Your task to perform on an android device: set the timer Image 0: 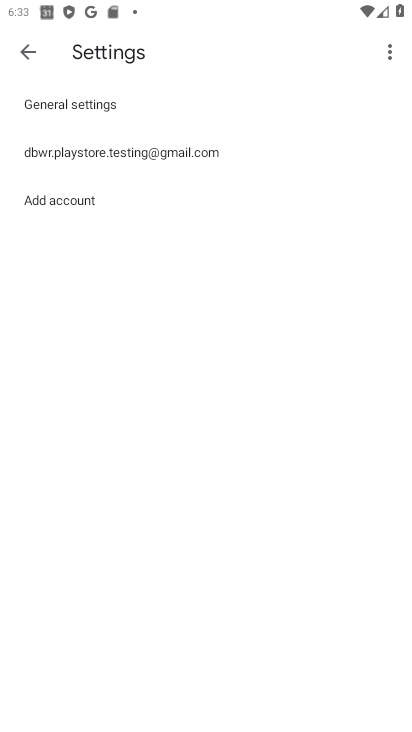
Step 0: press home button
Your task to perform on an android device: set the timer Image 1: 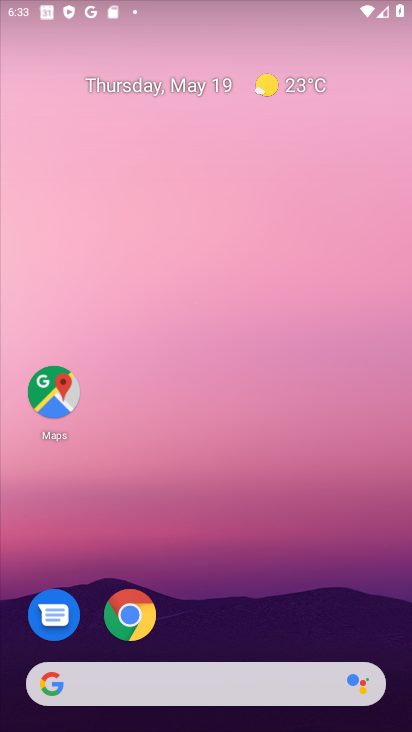
Step 1: drag from (354, 622) to (334, 52)
Your task to perform on an android device: set the timer Image 2: 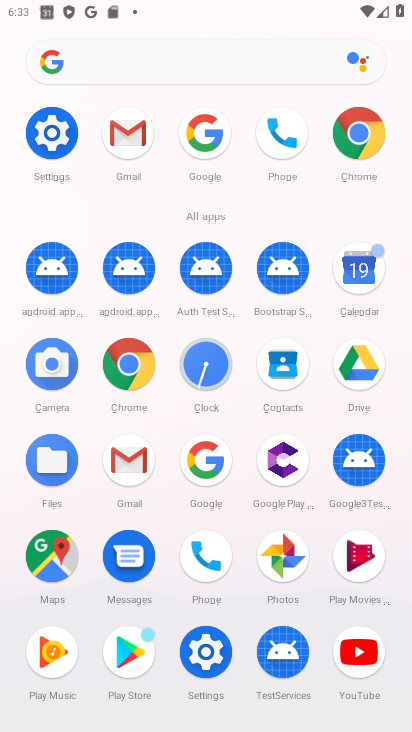
Step 2: click (202, 385)
Your task to perform on an android device: set the timer Image 3: 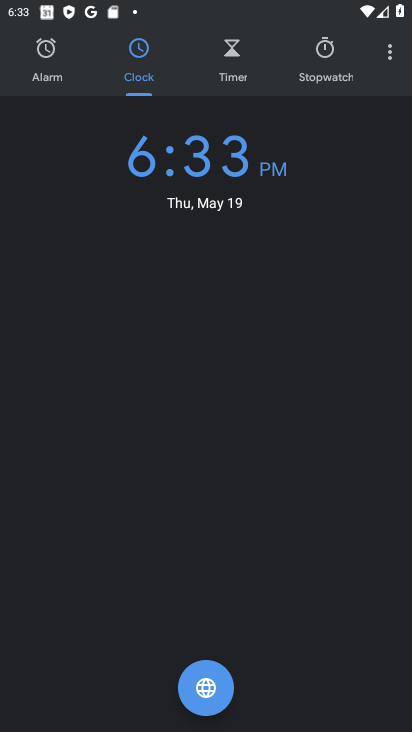
Step 3: click (385, 55)
Your task to perform on an android device: set the timer Image 4: 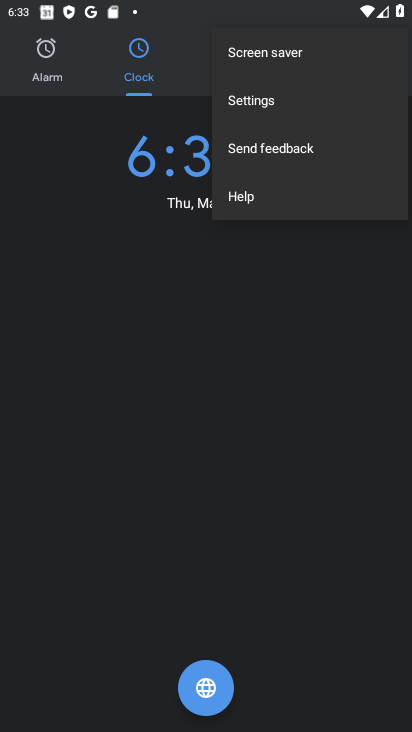
Step 4: click (305, 114)
Your task to perform on an android device: set the timer Image 5: 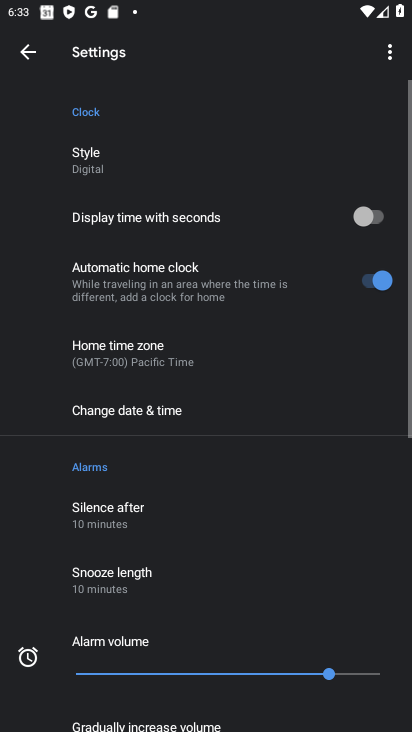
Step 5: click (140, 359)
Your task to perform on an android device: set the timer Image 6: 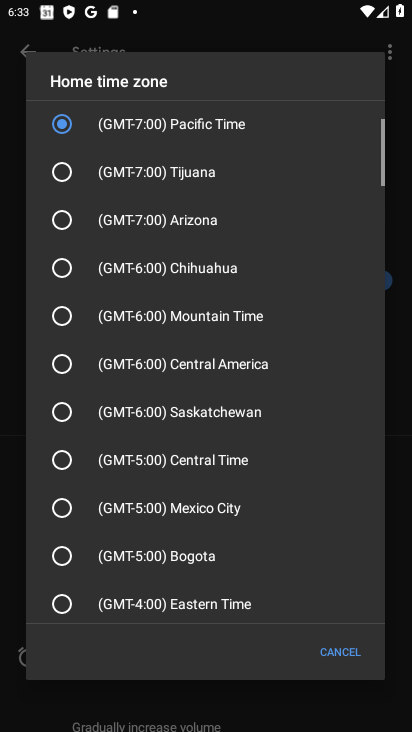
Step 6: click (140, 359)
Your task to perform on an android device: set the timer Image 7: 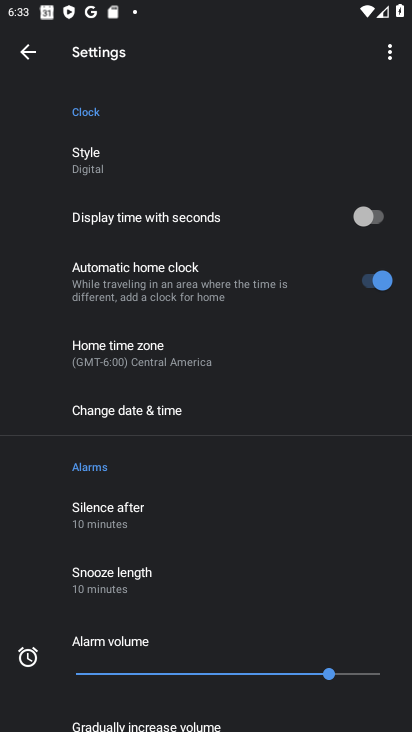
Step 7: task complete